Your task to perform on an android device: manage bookmarks in the chrome app Image 0: 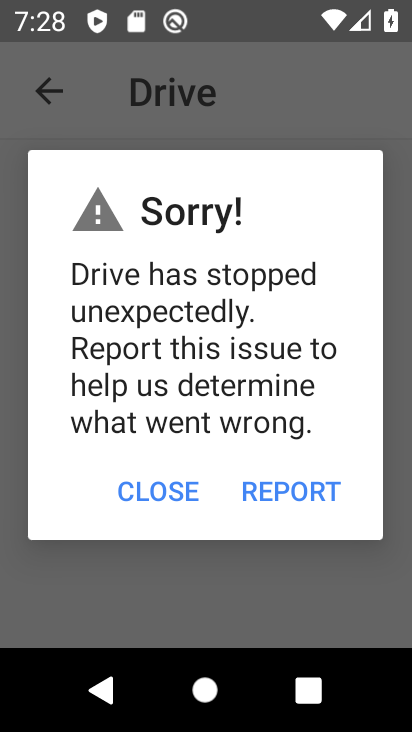
Step 0: drag from (208, 204) to (97, 271)
Your task to perform on an android device: manage bookmarks in the chrome app Image 1: 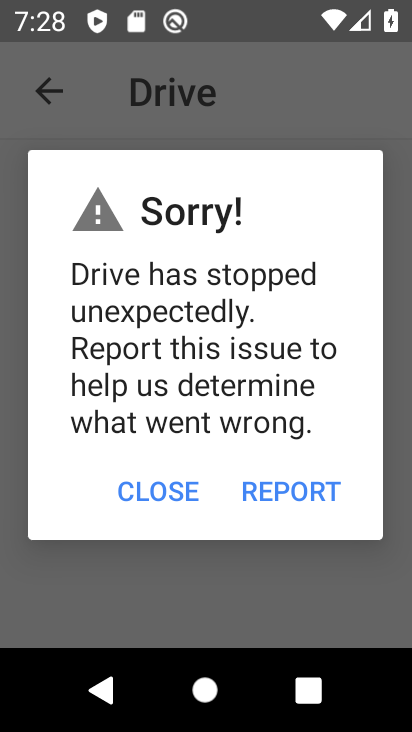
Step 1: press home button
Your task to perform on an android device: manage bookmarks in the chrome app Image 2: 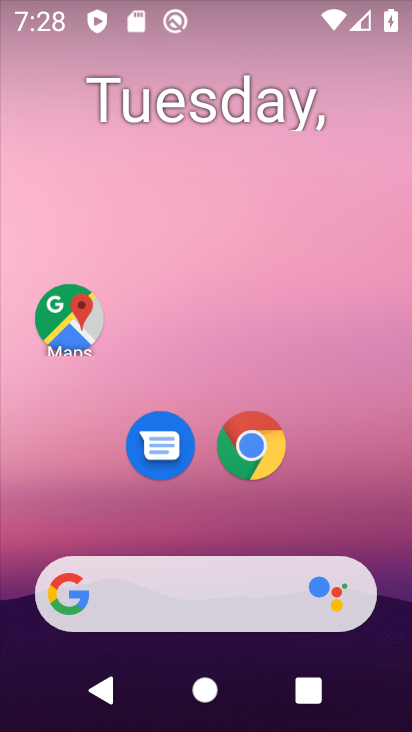
Step 2: drag from (224, 526) to (159, 50)
Your task to perform on an android device: manage bookmarks in the chrome app Image 3: 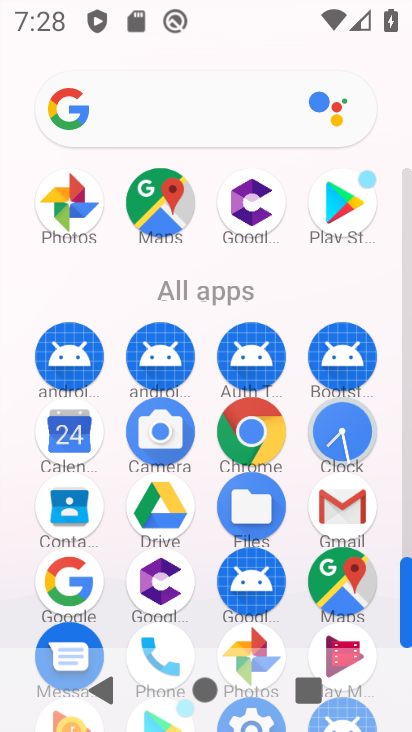
Step 3: click (339, 518)
Your task to perform on an android device: manage bookmarks in the chrome app Image 4: 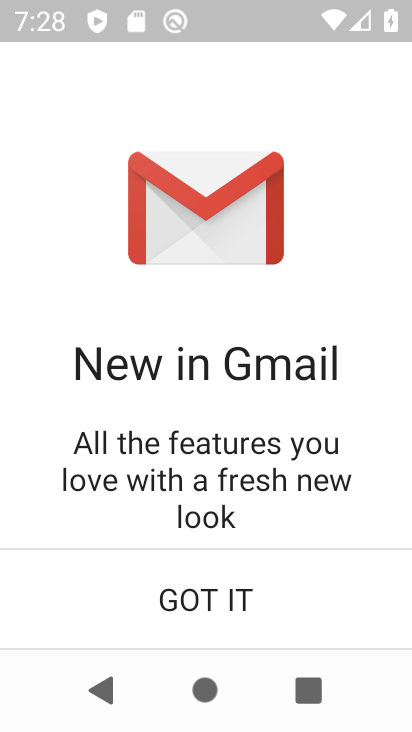
Step 4: click (243, 592)
Your task to perform on an android device: manage bookmarks in the chrome app Image 5: 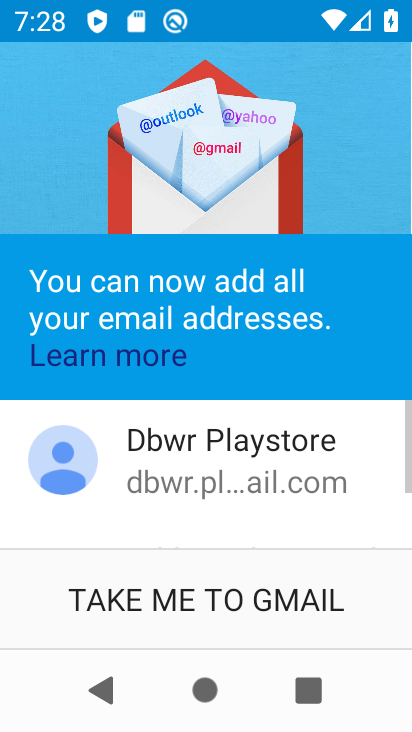
Step 5: click (235, 615)
Your task to perform on an android device: manage bookmarks in the chrome app Image 6: 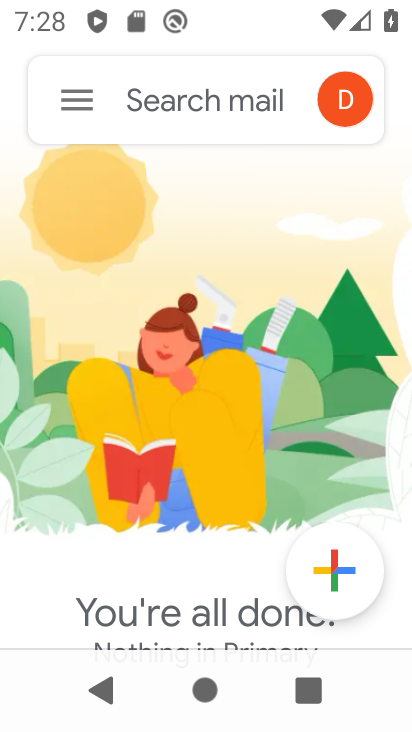
Step 6: press home button
Your task to perform on an android device: manage bookmarks in the chrome app Image 7: 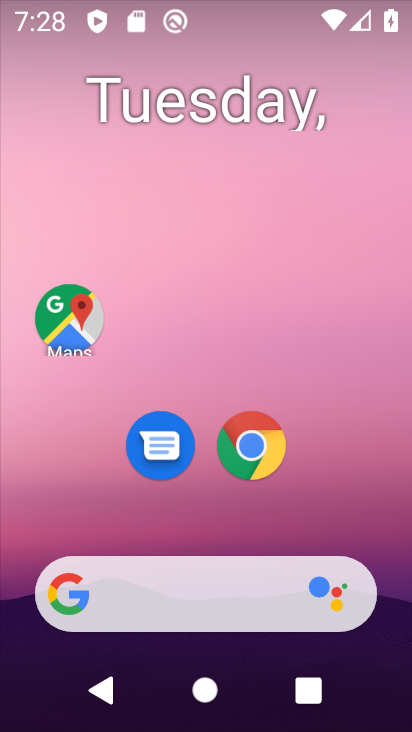
Step 7: click (259, 424)
Your task to perform on an android device: manage bookmarks in the chrome app Image 8: 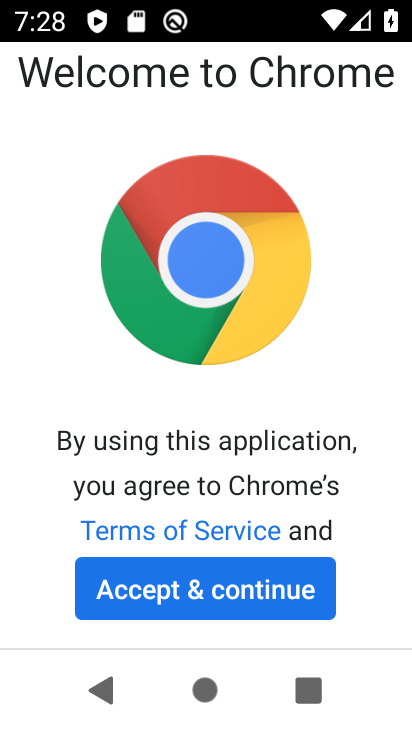
Step 8: click (192, 597)
Your task to perform on an android device: manage bookmarks in the chrome app Image 9: 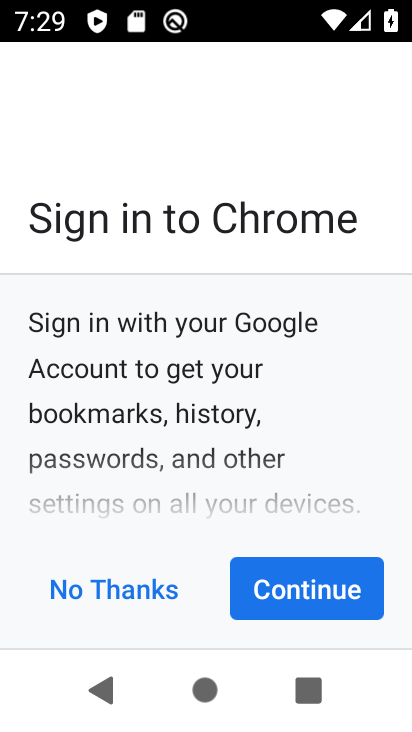
Step 9: click (287, 597)
Your task to perform on an android device: manage bookmarks in the chrome app Image 10: 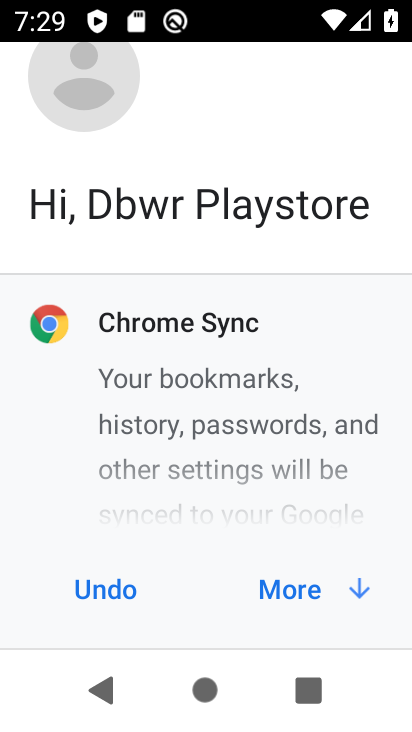
Step 10: click (287, 597)
Your task to perform on an android device: manage bookmarks in the chrome app Image 11: 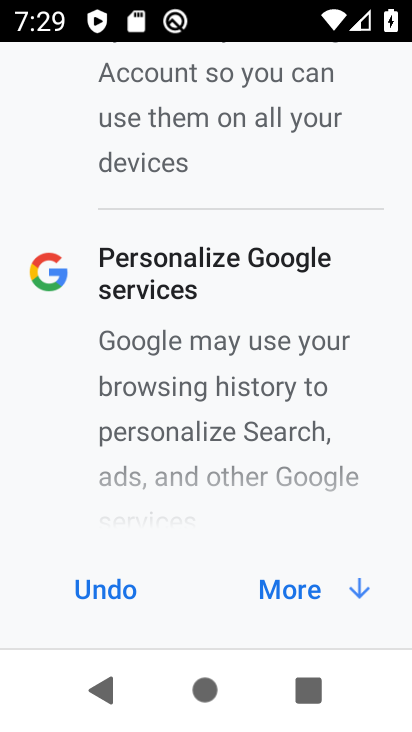
Step 11: click (287, 597)
Your task to perform on an android device: manage bookmarks in the chrome app Image 12: 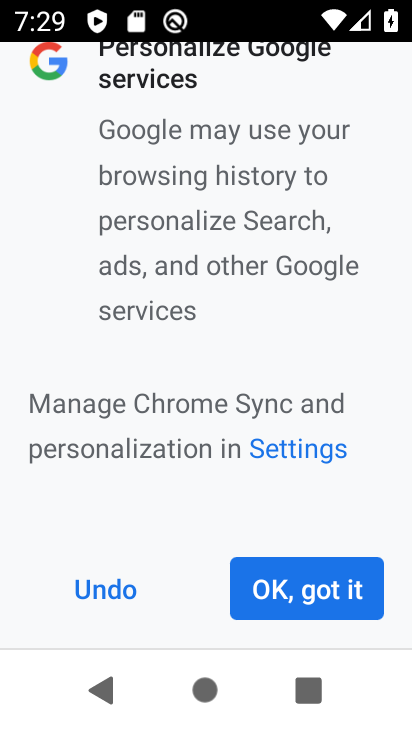
Step 12: click (288, 597)
Your task to perform on an android device: manage bookmarks in the chrome app Image 13: 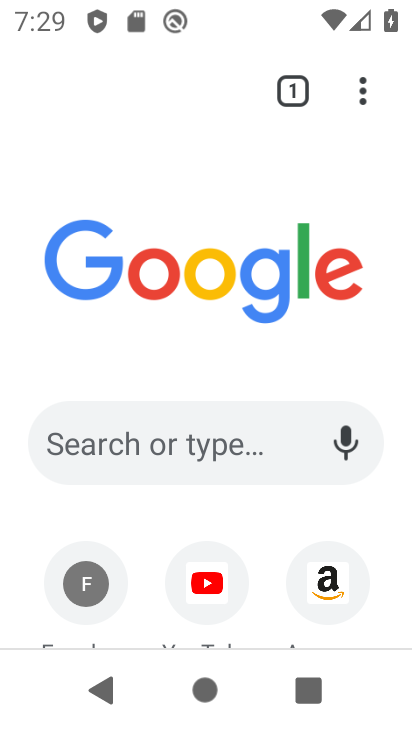
Step 13: click (368, 102)
Your task to perform on an android device: manage bookmarks in the chrome app Image 14: 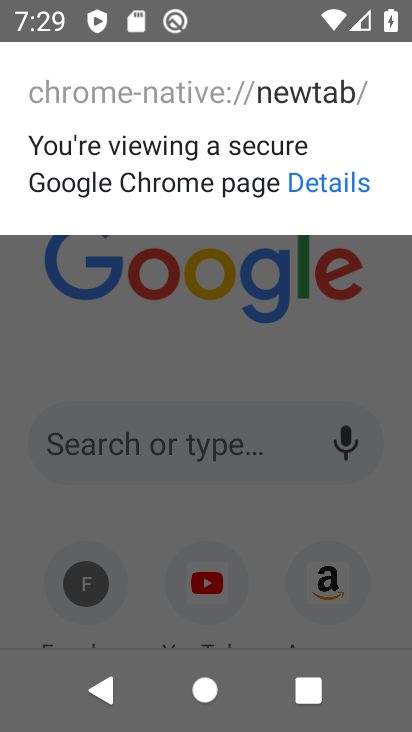
Step 14: click (243, 370)
Your task to perform on an android device: manage bookmarks in the chrome app Image 15: 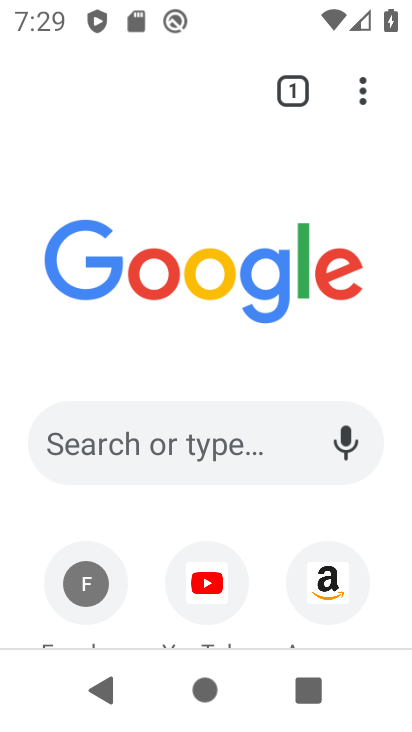
Step 15: click (363, 94)
Your task to perform on an android device: manage bookmarks in the chrome app Image 16: 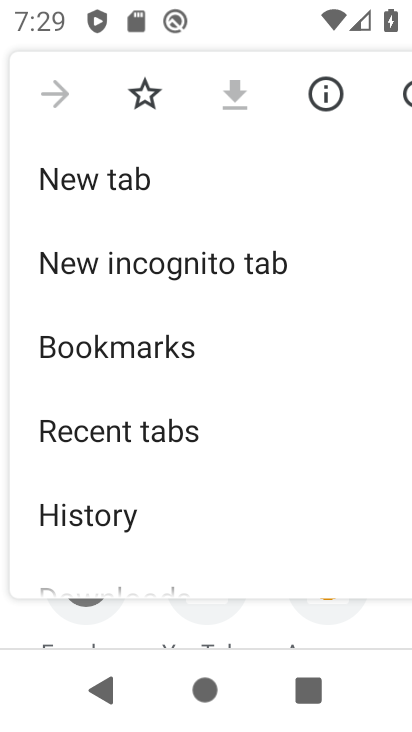
Step 16: click (138, 353)
Your task to perform on an android device: manage bookmarks in the chrome app Image 17: 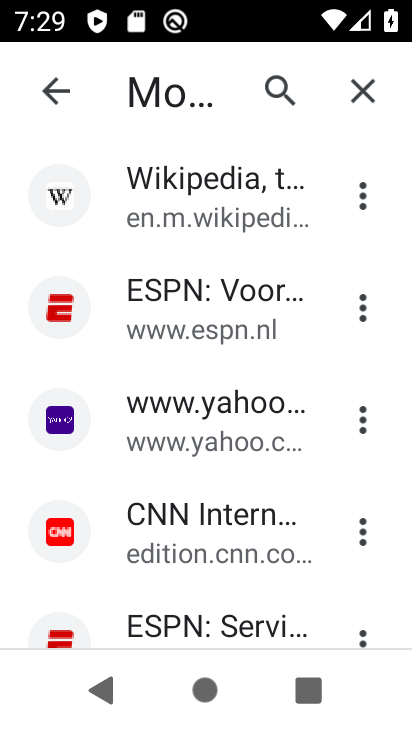
Step 17: click (362, 315)
Your task to perform on an android device: manage bookmarks in the chrome app Image 18: 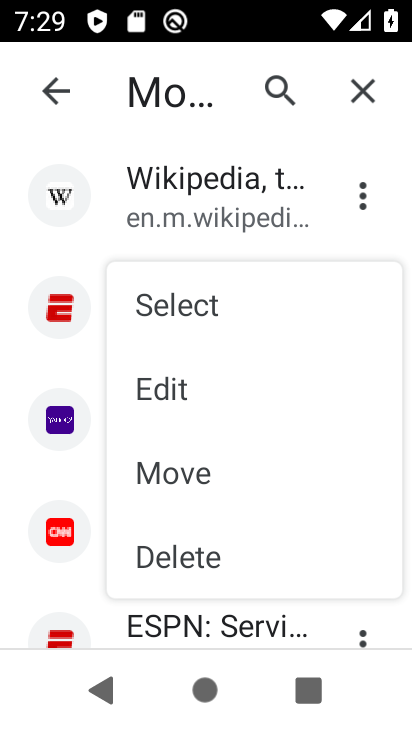
Step 18: click (148, 561)
Your task to perform on an android device: manage bookmarks in the chrome app Image 19: 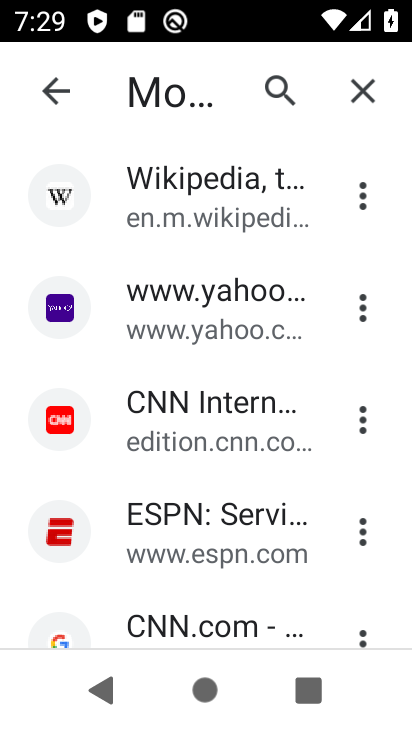
Step 19: task complete